Your task to perform on an android device: Go to Google Image 0: 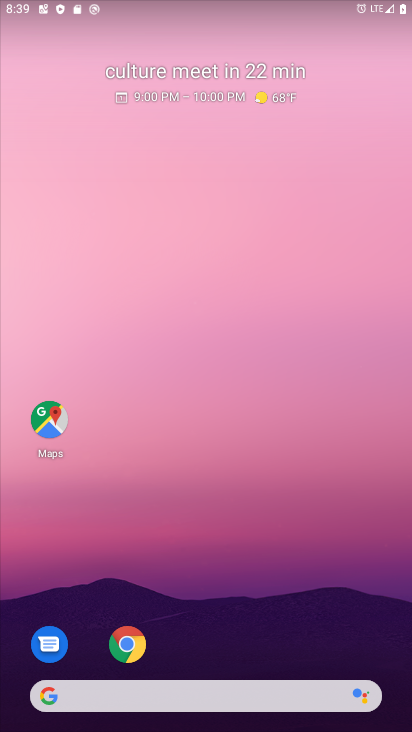
Step 0: drag from (258, 718) to (255, 196)
Your task to perform on an android device: Go to Google Image 1: 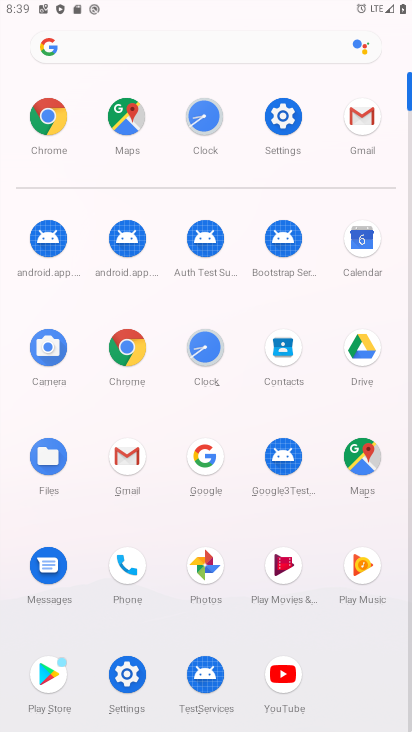
Step 1: click (43, 49)
Your task to perform on an android device: Go to Google Image 2: 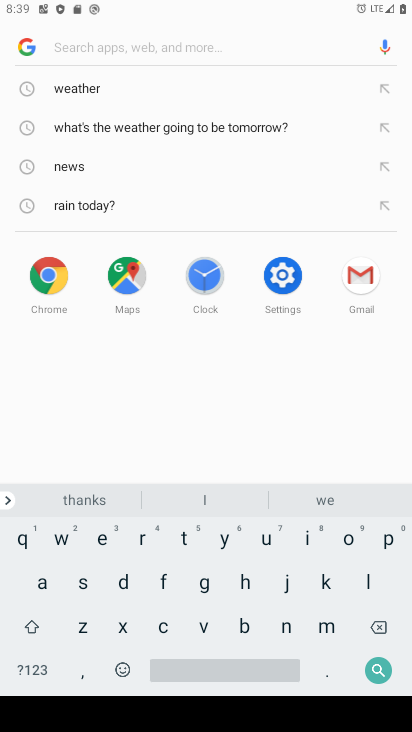
Step 2: click (20, 40)
Your task to perform on an android device: Go to Google Image 3: 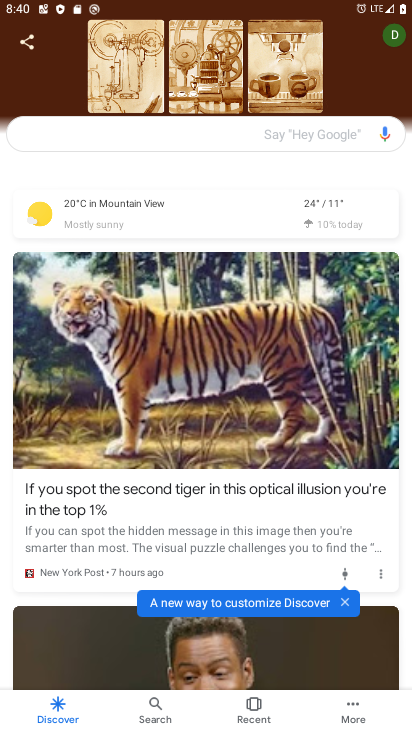
Step 3: task complete